Your task to perform on an android device: Go to Wikipedia Image 0: 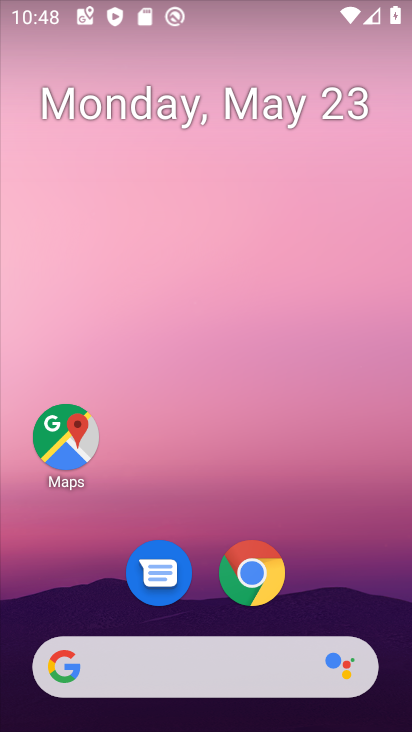
Step 0: drag from (258, 643) to (273, 364)
Your task to perform on an android device: Go to Wikipedia Image 1: 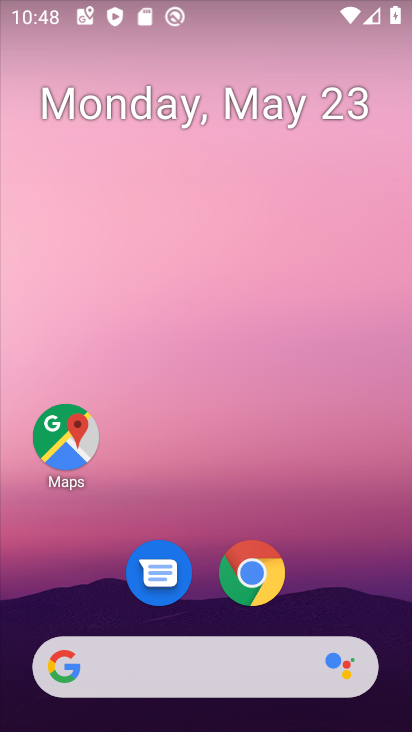
Step 1: drag from (248, 587) to (289, 275)
Your task to perform on an android device: Go to Wikipedia Image 2: 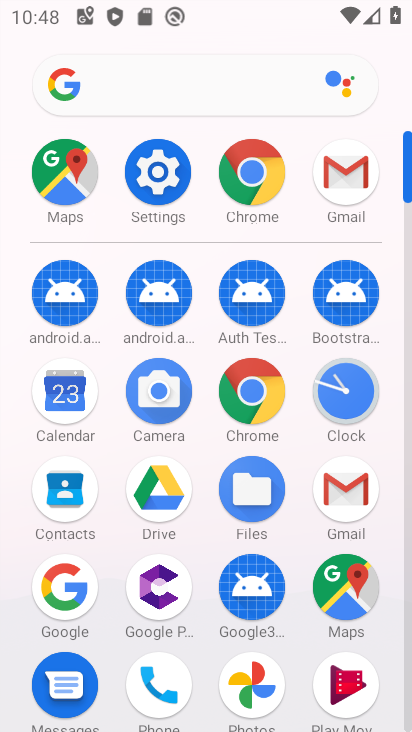
Step 2: click (244, 199)
Your task to perform on an android device: Go to Wikipedia Image 3: 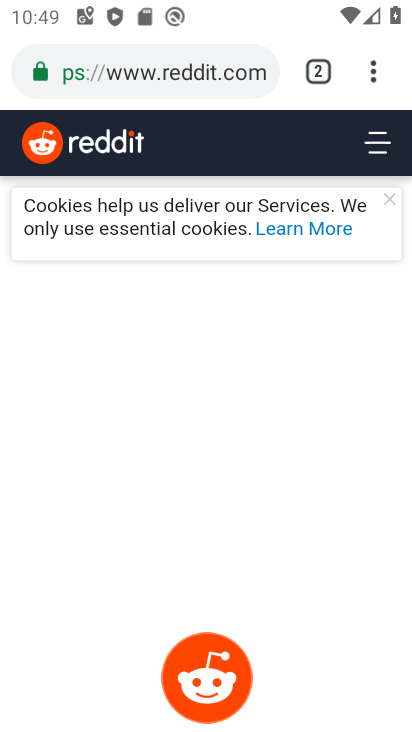
Step 3: click (214, 74)
Your task to perform on an android device: Go to Wikipedia Image 4: 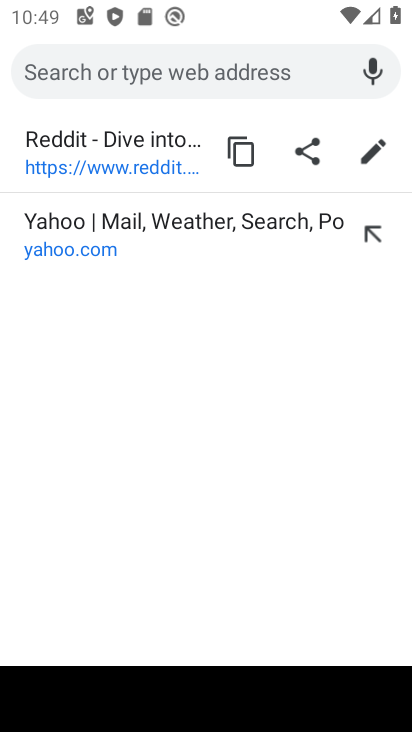
Step 4: type "wikipedia"
Your task to perform on an android device: Go to Wikipedia Image 5: 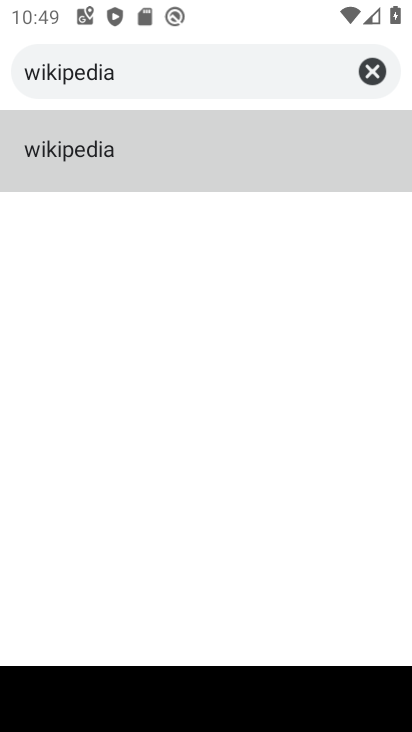
Step 5: click (214, 158)
Your task to perform on an android device: Go to Wikipedia Image 6: 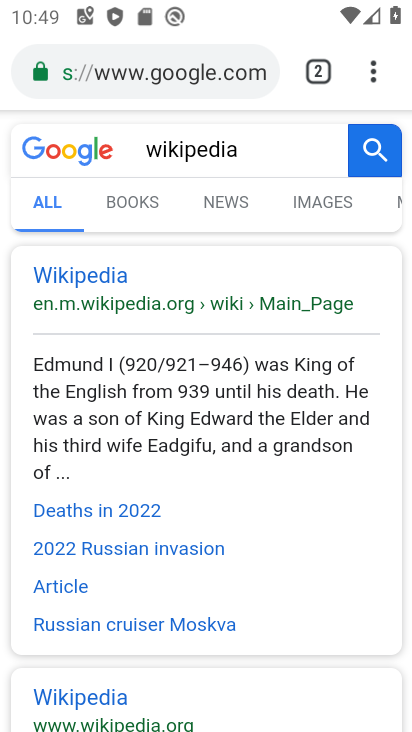
Step 6: click (78, 284)
Your task to perform on an android device: Go to Wikipedia Image 7: 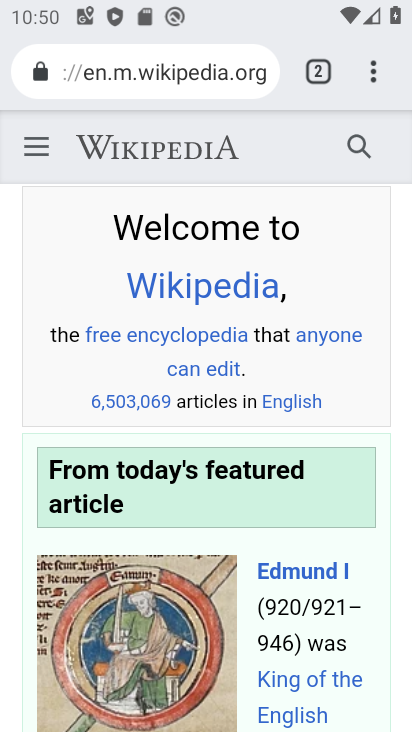
Step 7: task complete